Your task to perform on an android device: toggle notifications settings in the gmail app Image 0: 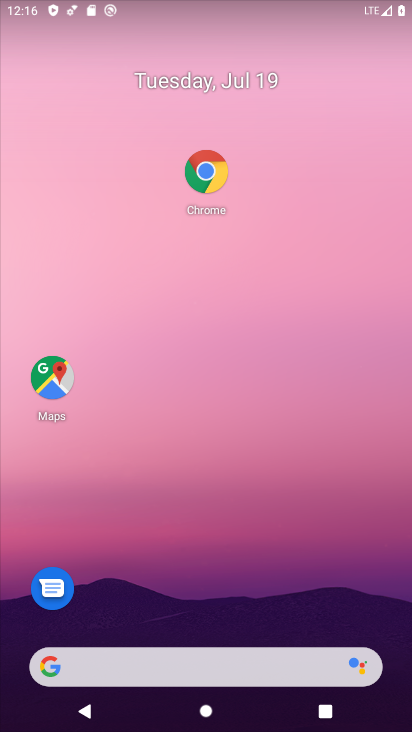
Step 0: drag from (174, 614) to (137, 135)
Your task to perform on an android device: toggle notifications settings in the gmail app Image 1: 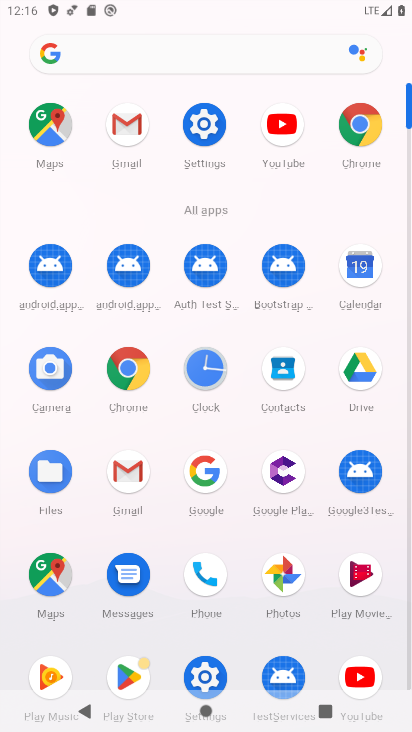
Step 1: click (118, 130)
Your task to perform on an android device: toggle notifications settings in the gmail app Image 2: 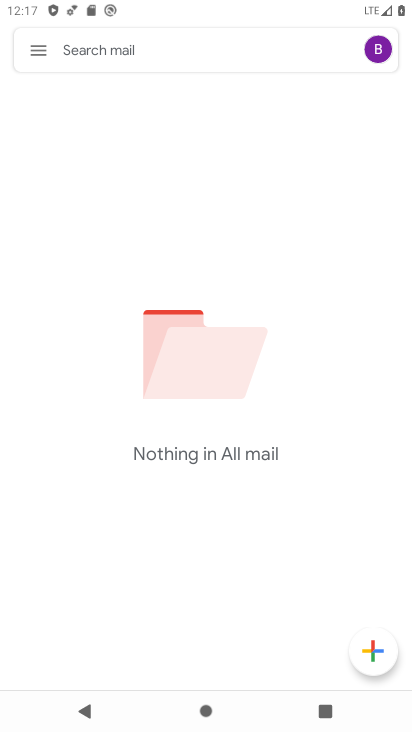
Step 2: click (45, 63)
Your task to perform on an android device: toggle notifications settings in the gmail app Image 3: 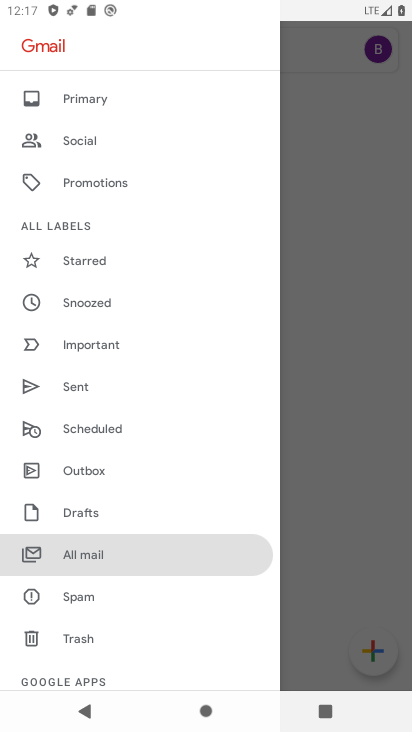
Step 3: drag from (89, 593) to (110, 232)
Your task to perform on an android device: toggle notifications settings in the gmail app Image 4: 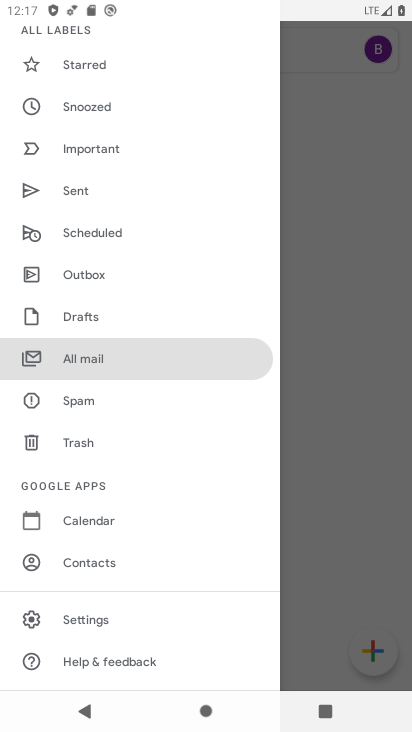
Step 4: click (137, 619)
Your task to perform on an android device: toggle notifications settings in the gmail app Image 5: 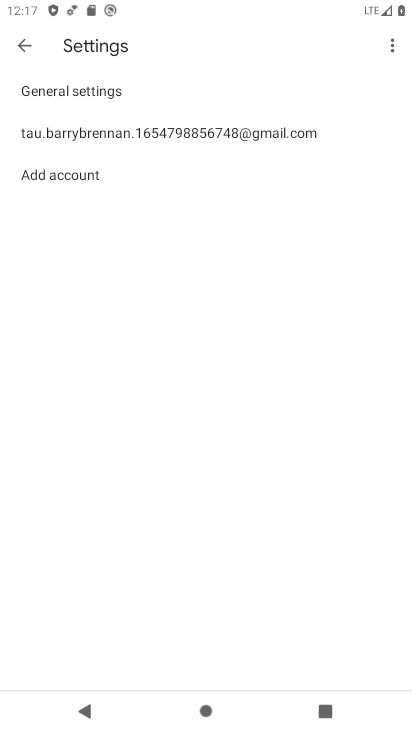
Step 5: click (95, 142)
Your task to perform on an android device: toggle notifications settings in the gmail app Image 6: 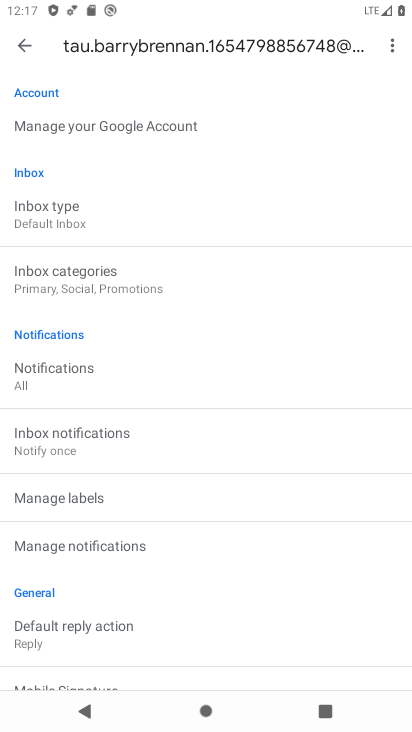
Step 6: click (96, 378)
Your task to perform on an android device: toggle notifications settings in the gmail app Image 7: 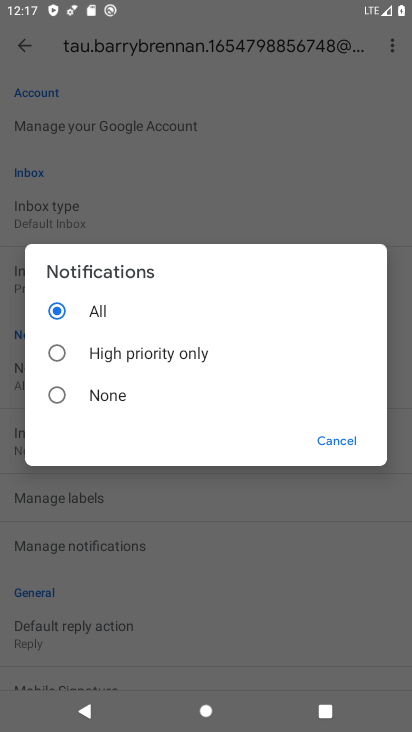
Step 7: click (96, 378)
Your task to perform on an android device: toggle notifications settings in the gmail app Image 8: 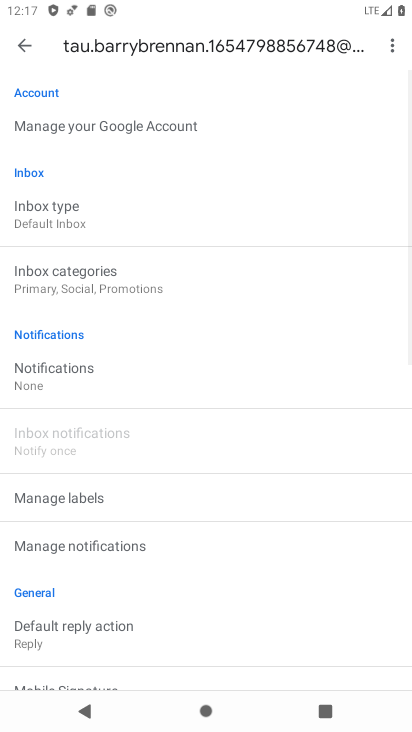
Step 8: task complete